Your task to perform on an android device: Open Amazon Image 0: 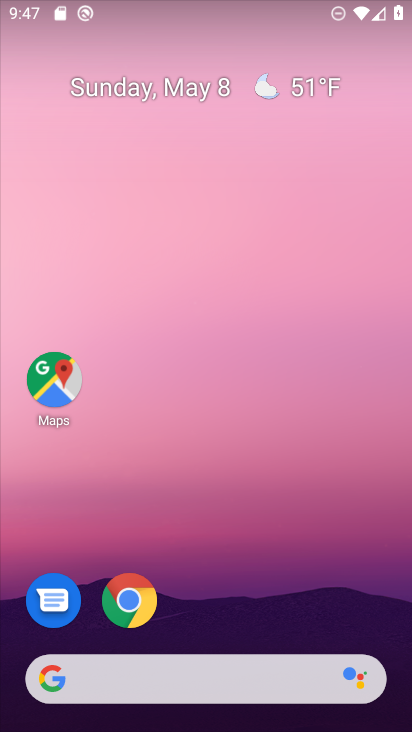
Step 0: click (131, 612)
Your task to perform on an android device: Open Amazon Image 1: 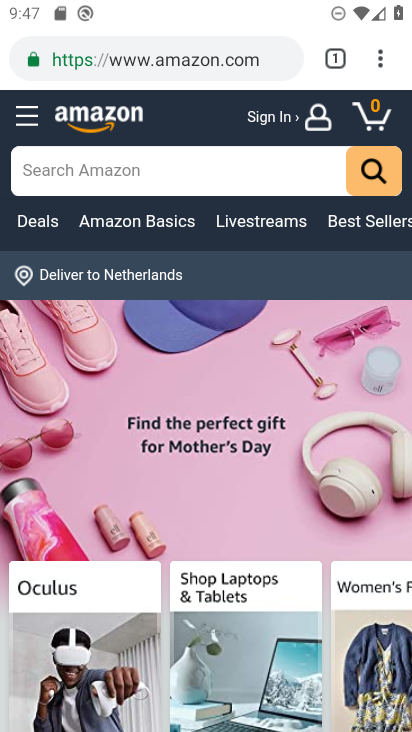
Step 1: task complete